Your task to perform on an android device: What is the news today? Image 0: 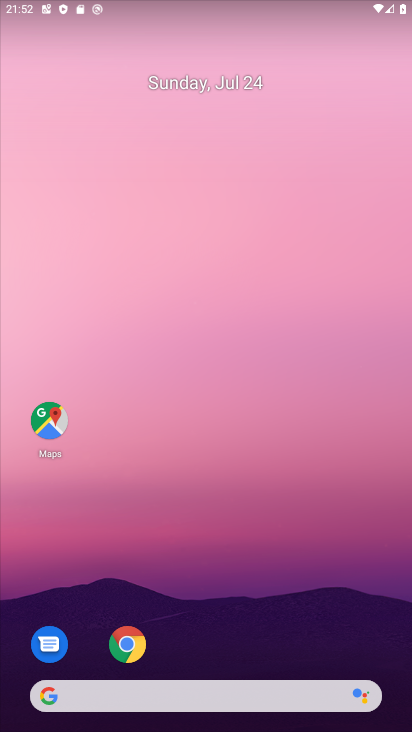
Step 0: drag from (6, 323) to (334, 282)
Your task to perform on an android device: What is the news today? Image 1: 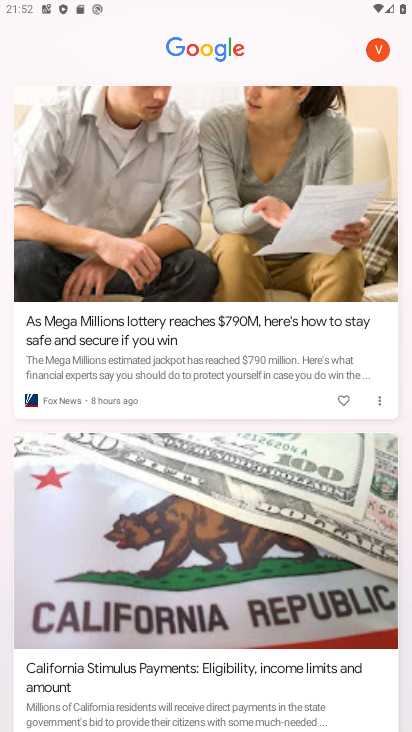
Step 1: task complete